Your task to perform on an android device: Open settings on Google Maps Image 0: 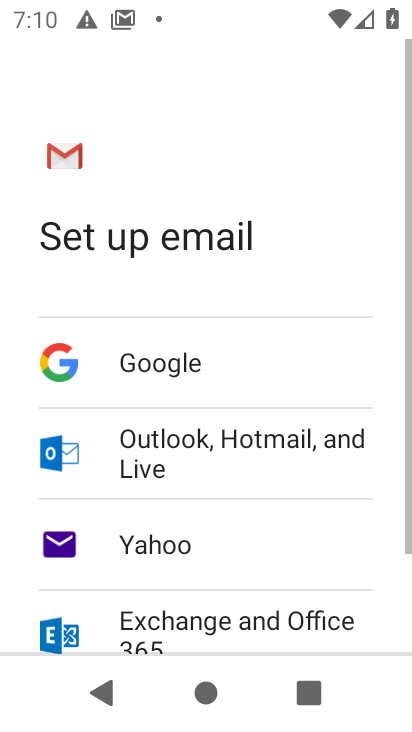
Step 0: press home button
Your task to perform on an android device: Open settings on Google Maps Image 1: 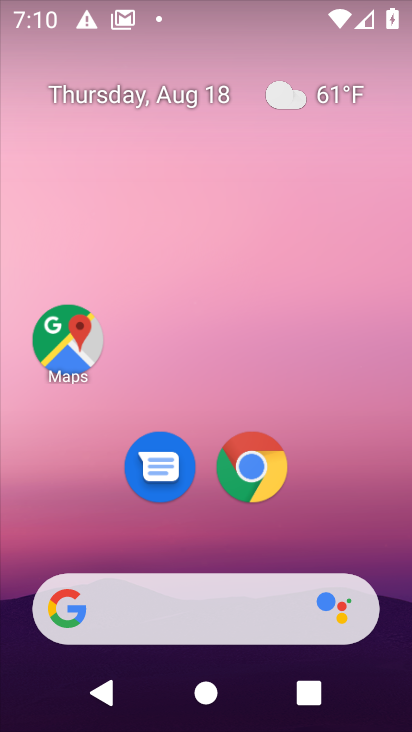
Step 1: click (61, 349)
Your task to perform on an android device: Open settings on Google Maps Image 2: 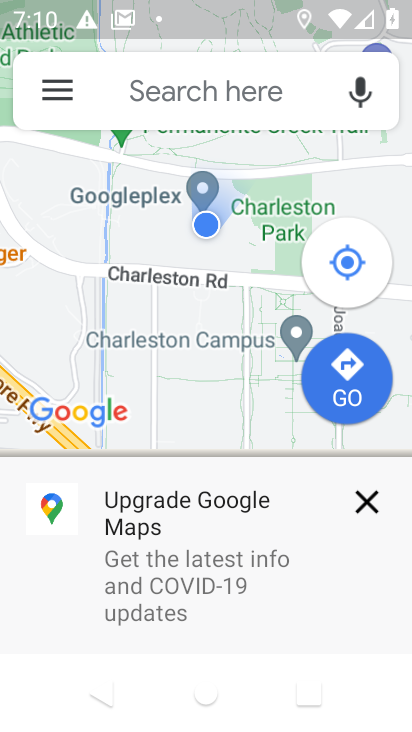
Step 2: click (362, 502)
Your task to perform on an android device: Open settings on Google Maps Image 3: 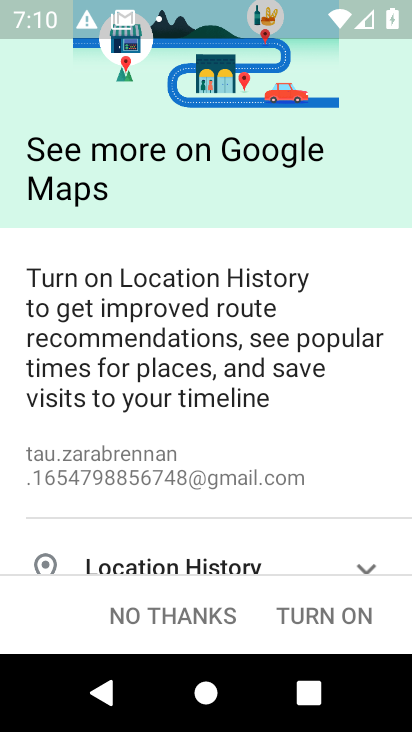
Step 3: click (196, 614)
Your task to perform on an android device: Open settings on Google Maps Image 4: 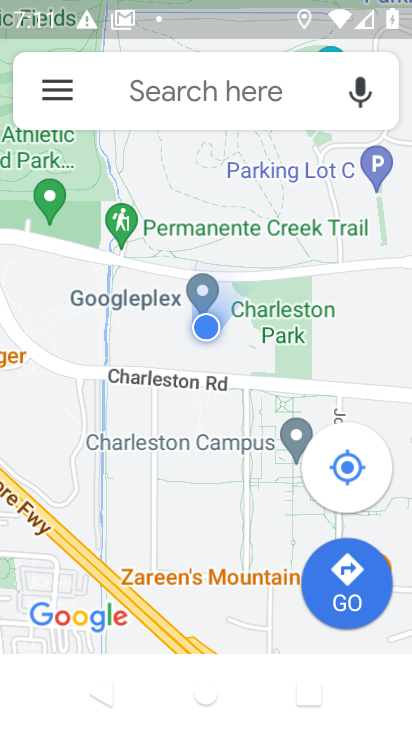
Step 4: press home button
Your task to perform on an android device: Open settings on Google Maps Image 5: 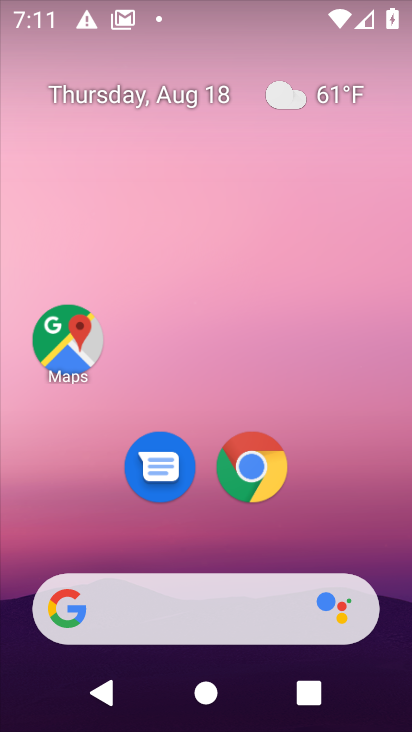
Step 5: click (74, 348)
Your task to perform on an android device: Open settings on Google Maps Image 6: 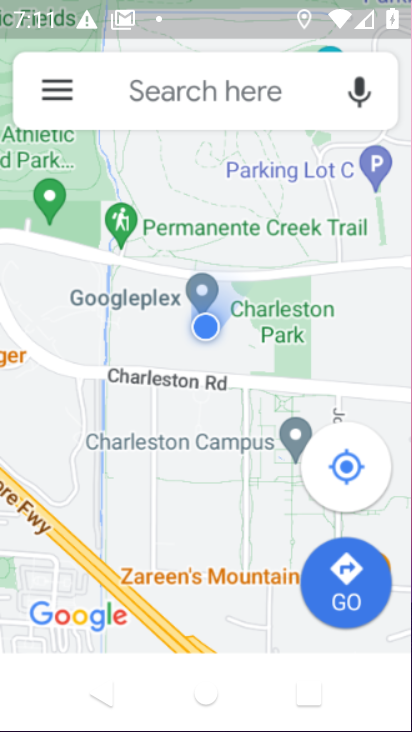
Step 6: click (74, 348)
Your task to perform on an android device: Open settings on Google Maps Image 7: 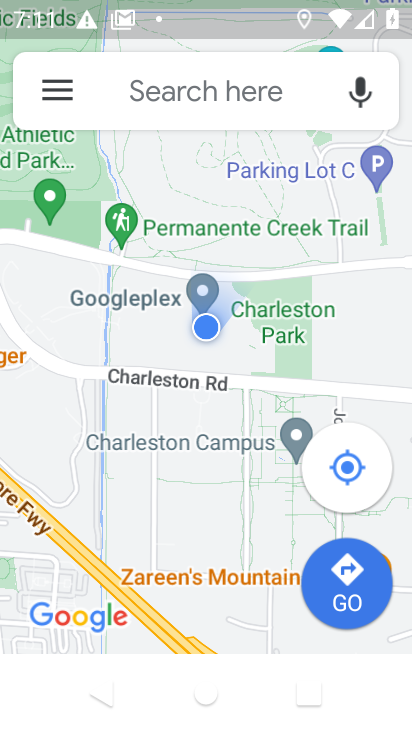
Step 7: task complete